Your task to perform on an android device: Open Google Chrome and click the shortcut for Amazon.com Image 0: 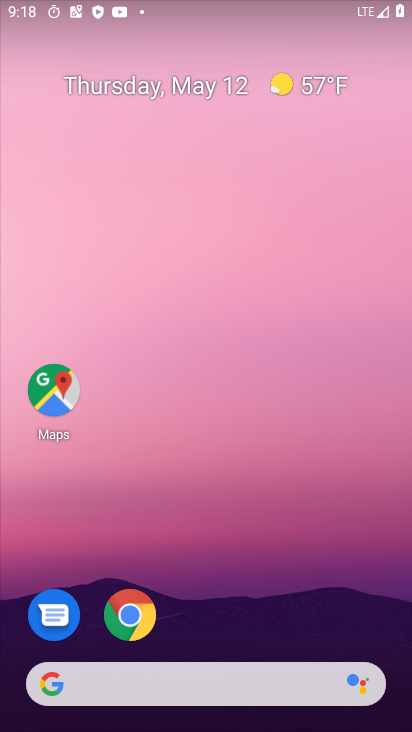
Step 0: drag from (270, 563) to (223, 11)
Your task to perform on an android device: Open Google Chrome and click the shortcut for Amazon.com Image 1: 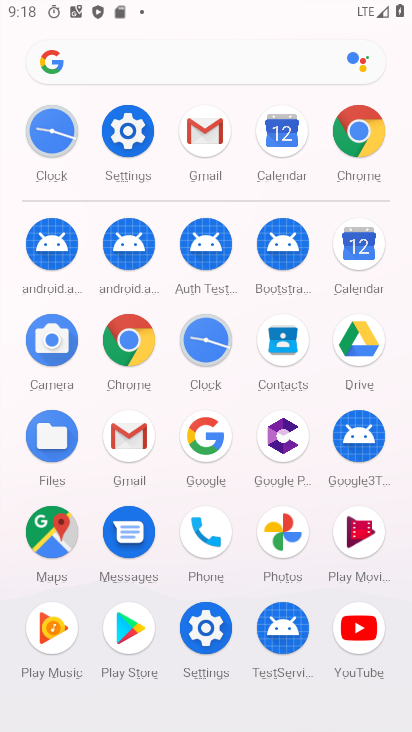
Step 1: drag from (11, 525) to (3, 253)
Your task to perform on an android device: Open Google Chrome and click the shortcut for Amazon.com Image 2: 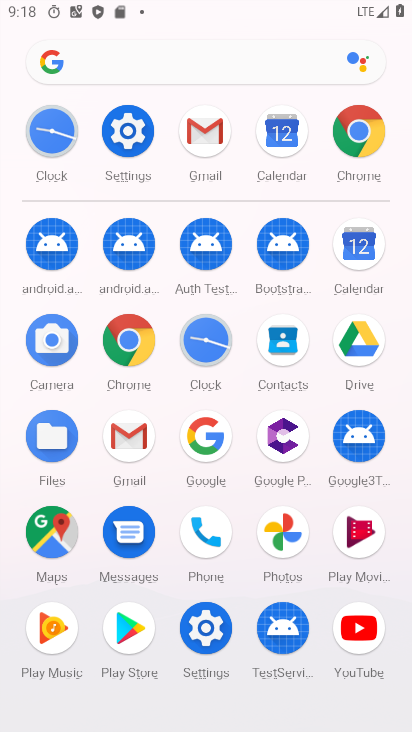
Step 2: click (123, 340)
Your task to perform on an android device: Open Google Chrome and click the shortcut for Amazon.com Image 3: 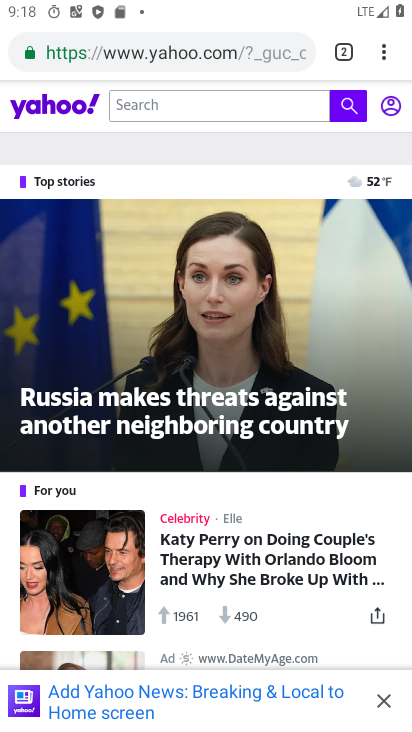
Step 3: click (197, 47)
Your task to perform on an android device: Open Google Chrome and click the shortcut for Amazon.com Image 4: 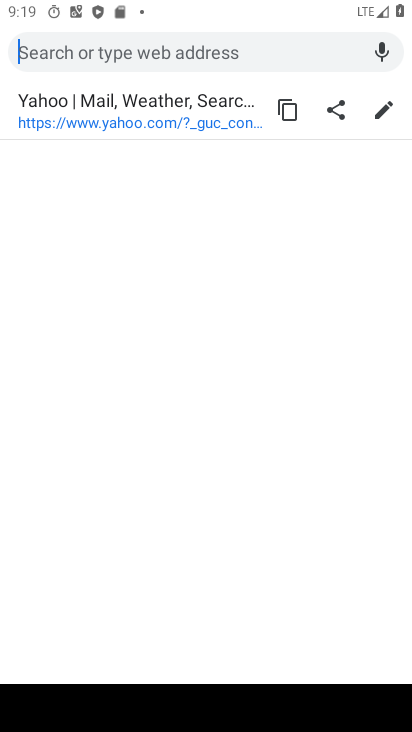
Step 4: type " Amazon.com"
Your task to perform on an android device: Open Google Chrome and click the shortcut for Amazon.com Image 5: 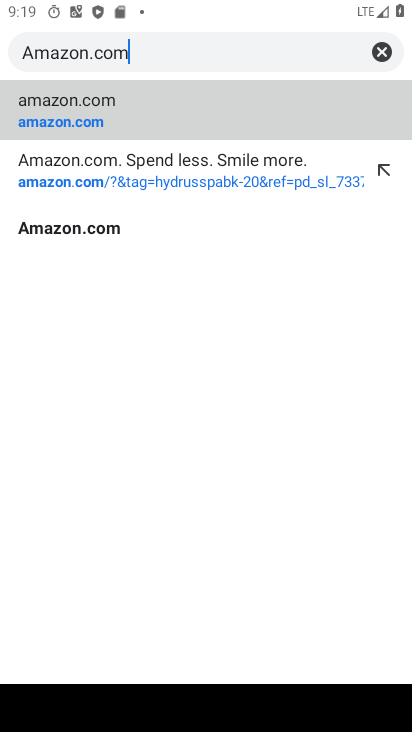
Step 5: type ""
Your task to perform on an android device: Open Google Chrome and click the shortcut for Amazon.com Image 6: 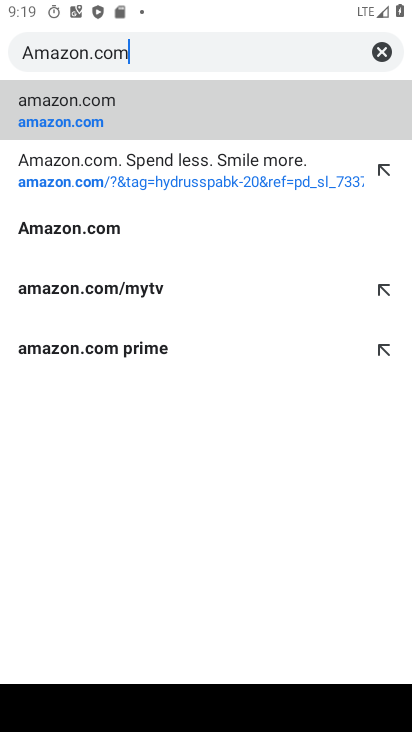
Step 6: click (130, 121)
Your task to perform on an android device: Open Google Chrome and click the shortcut for Amazon.com Image 7: 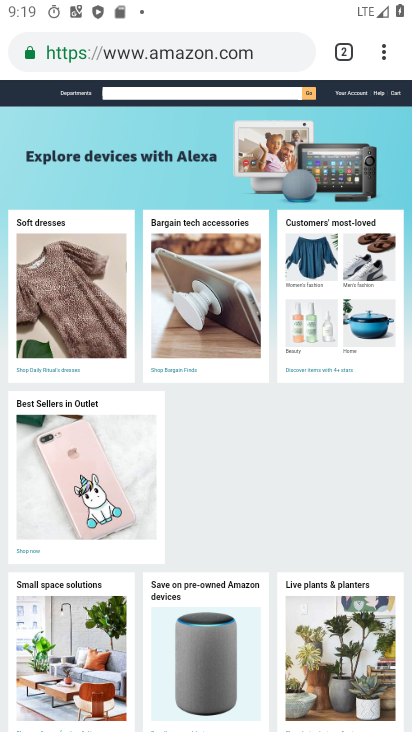
Step 7: task complete